Your task to perform on an android device: see sites visited before in the chrome app Image 0: 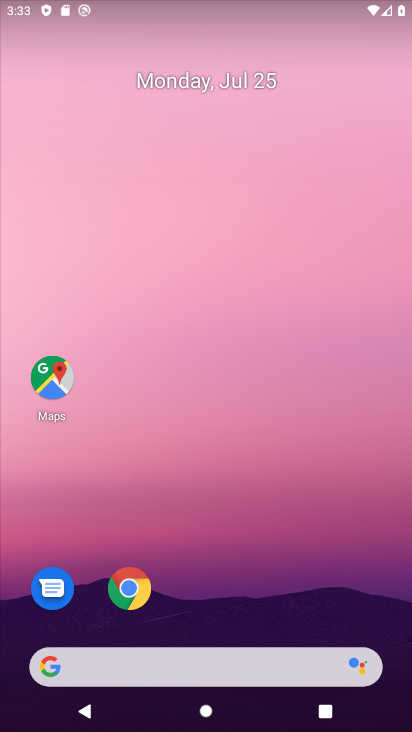
Step 0: press back button
Your task to perform on an android device: see sites visited before in the chrome app Image 1: 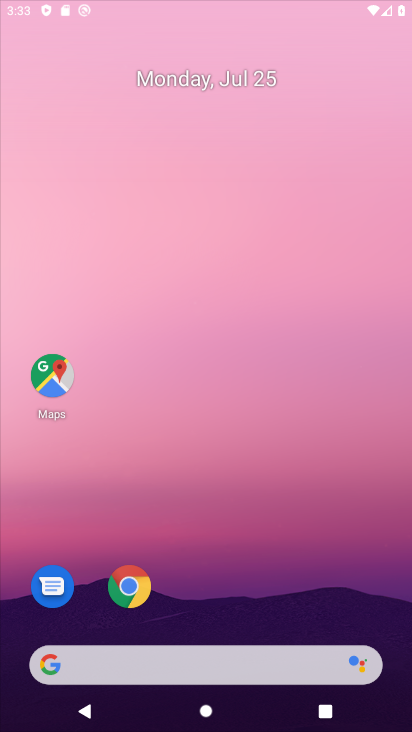
Step 1: drag from (233, 448) to (205, 152)
Your task to perform on an android device: see sites visited before in the chrome app Image 2: 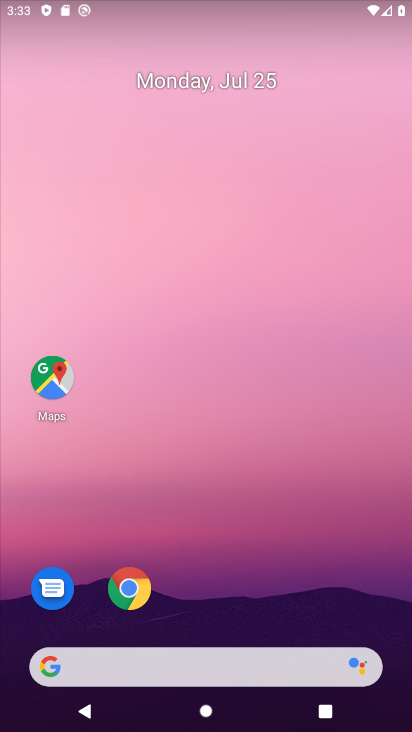
Step 2: click (200, 242)
Your task to perform on an android device: see sites visited before in the chrome app Image 3: 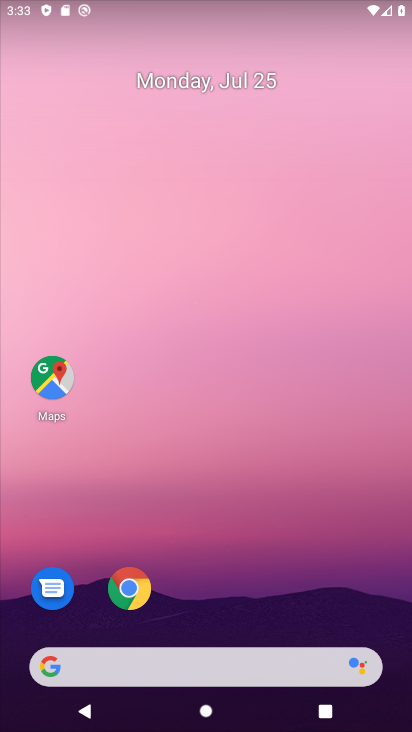
Step 3: drag from (242, 615) to (196, 217)
Your task to perform on an android device: see sites visited before in the chrome app Image 4: 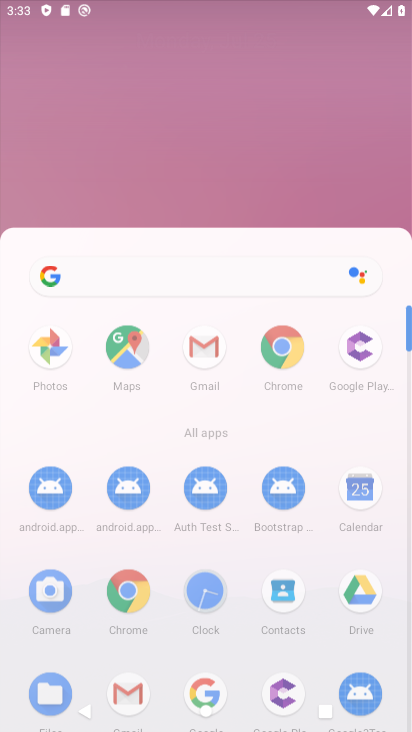
Step 4: drag from (260, 624) to (254, 267)
Your task to perform on an android device: see sites visited before in the chrome app Image 5: 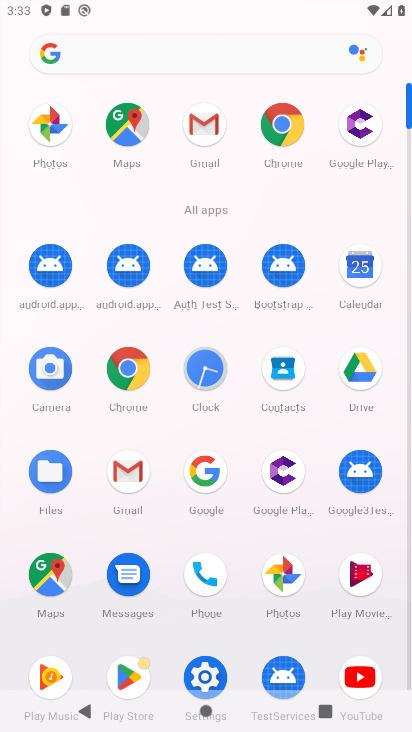
Step 5: click (265, 117)
Your task to perform on an android device: see sites visited before in the chrome app Image 6: 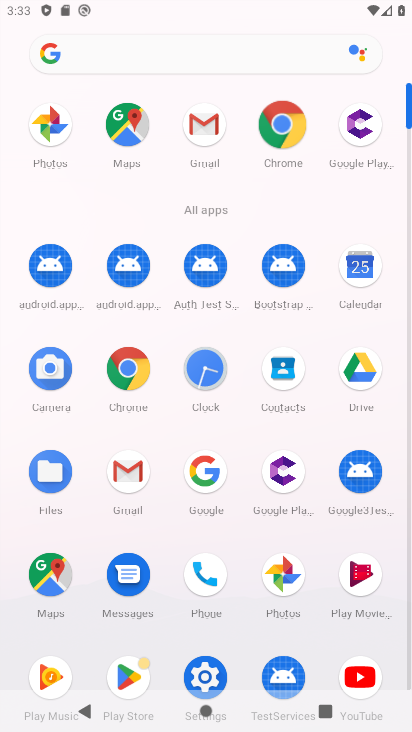
Step 6: click (272, 122)
Your task to perform on an android device: see sites visited before in the chrome app Image 7: 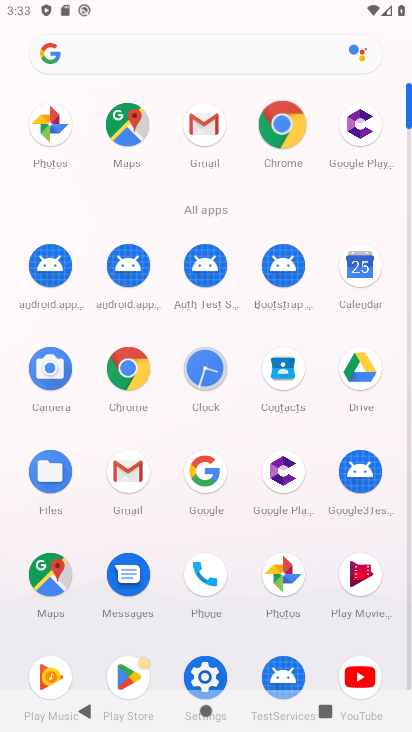
Step 7: click (273, 123)
Your task to perform on an android device: see sites visited before in the chrome app Image 8: 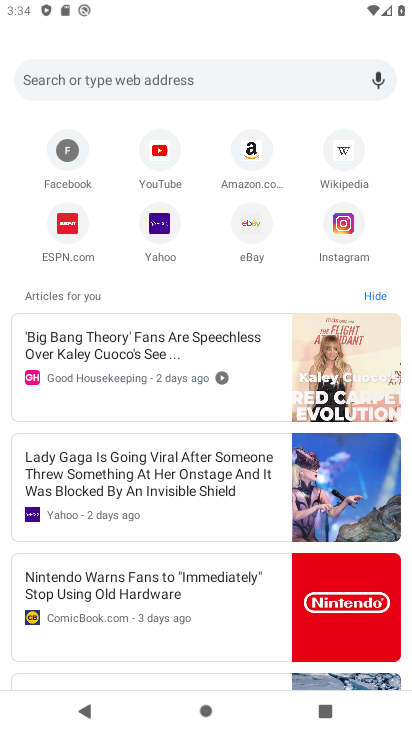
Step 8: drag from (271, 88) to (277, 404)
Your task to perform on an android device: see sites visited before in the chrome app Image 9: 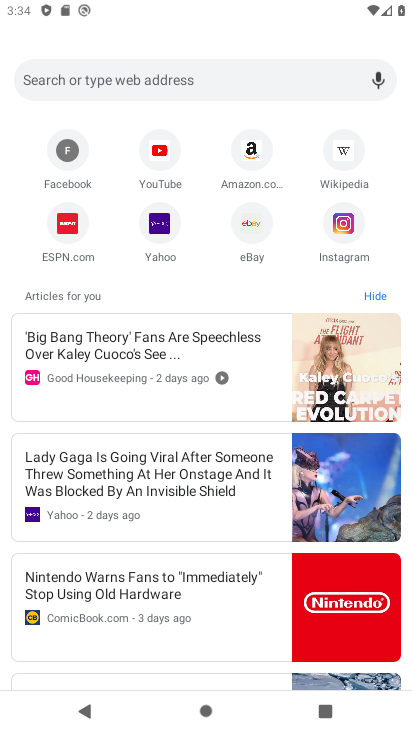
Step 9: drag from (366, 89) to (367, 195)
Your task to perform on an android device: see sites visited before in the chrome app Image 10: 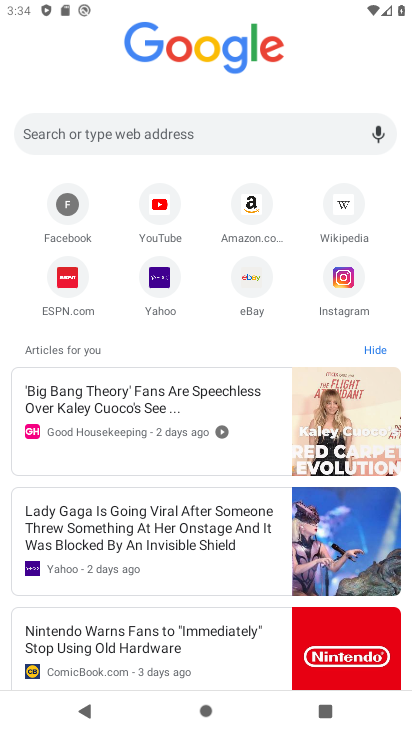
Step 10: drag from (387, 47) to (388, 421)
Your task to perform on an android device: see sites visited before in the chrome app Image 11: 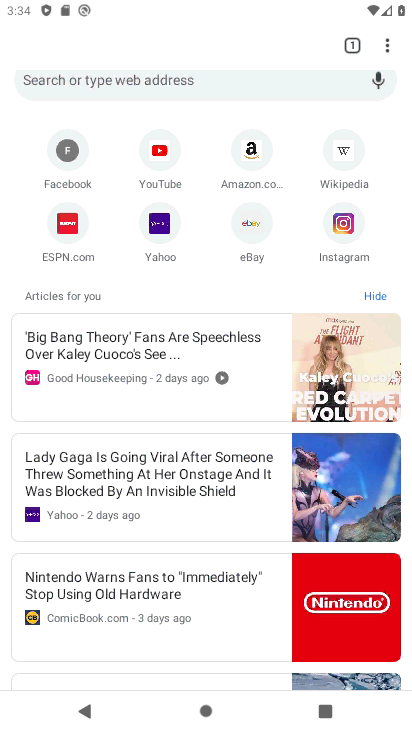
Step 11: drag from (367, 64) to (342, 408)
Your task to perform on an android device: see sites visited before in the chrome app Image 12: 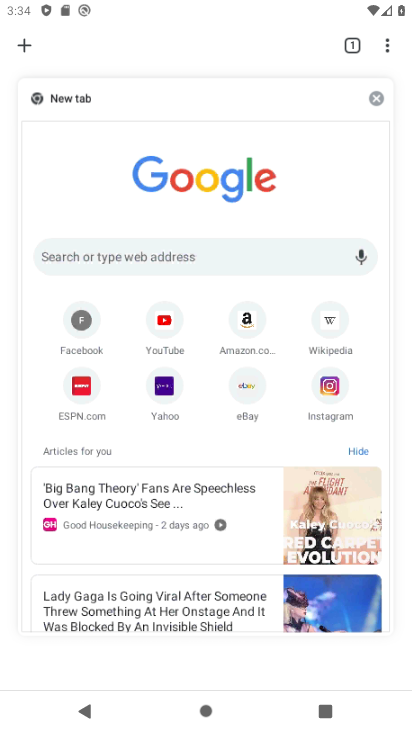
Step 12: drag from (351, 258) to (354, 386)
Your task to perform on an android device: see sites visited before in the chrome app Image 13: 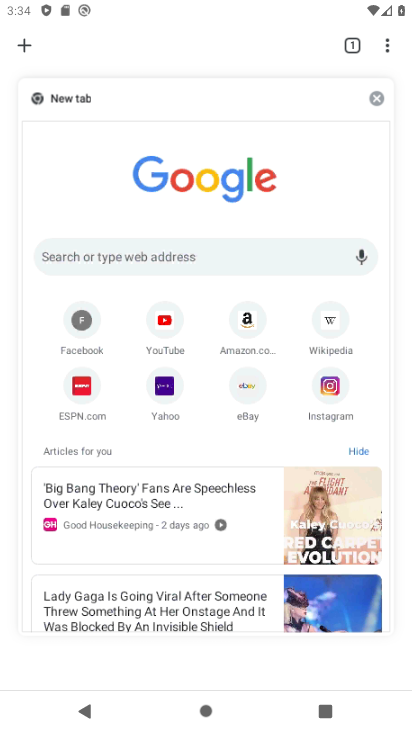
Step 13: click (390, 34)
Your task to perform on an android device: see sites visited before in the chrome app Image 14: 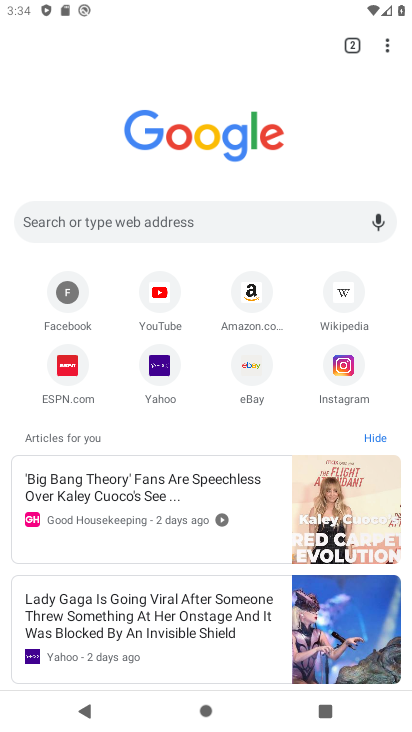
Step 14: click (385, 38)
Your task to perform on an android device: see sites visited before in the chrome app Image 15: 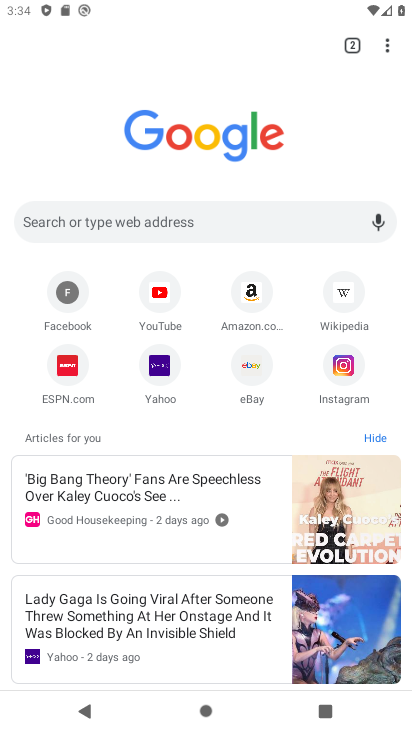
Step 15: click (386, 48)
Your task to perform on an android device: see sites visited before in the chrome app Image 16: 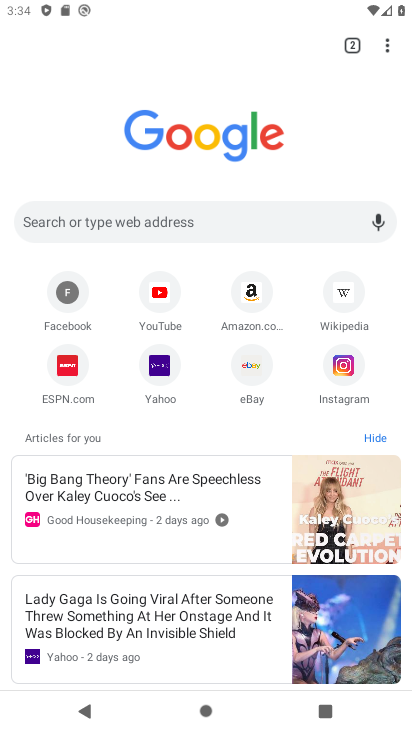
Step 16: drag from (385, 44) to (226, 206)
Your task to perform on an android device: see sites visited before in the chrome app Image 17: 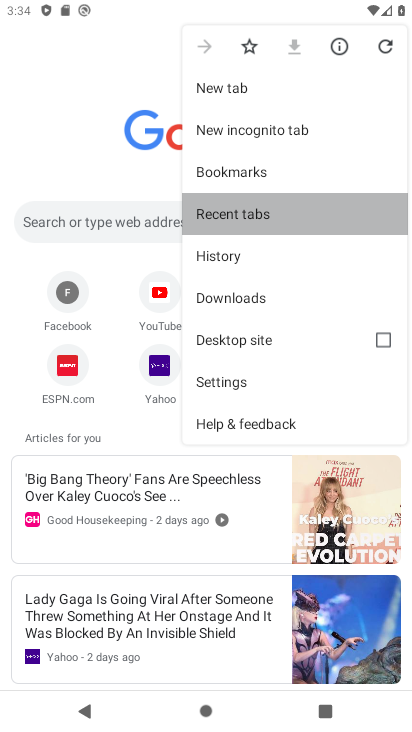
Step 17: click (229, 205)
Your task to perform on an android device: see sites visited before in the chrome app Image 18: 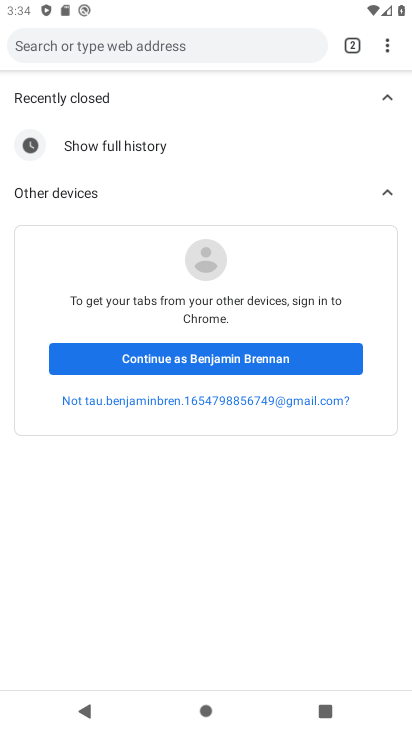
Step 18: task complete